Your task to perform on an android device: toggle show notifications on the lock screen Image 0: 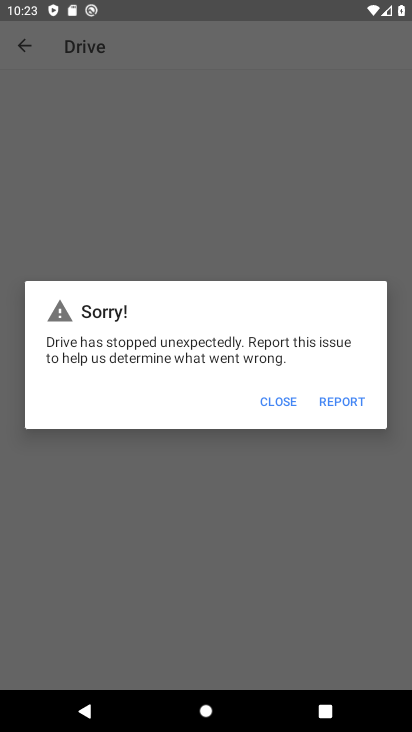
Step 0: press home button
Your task to perform on an android device: toggle show notifications on the lock screen Image 1: 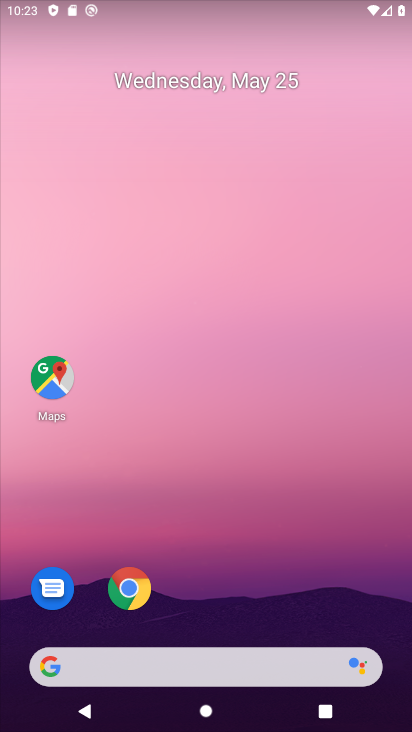
Step 1: drag from (277, 550) to (182, 132)
Your task to perform on an android device: toggle show notifications on the lock screen Image 2: 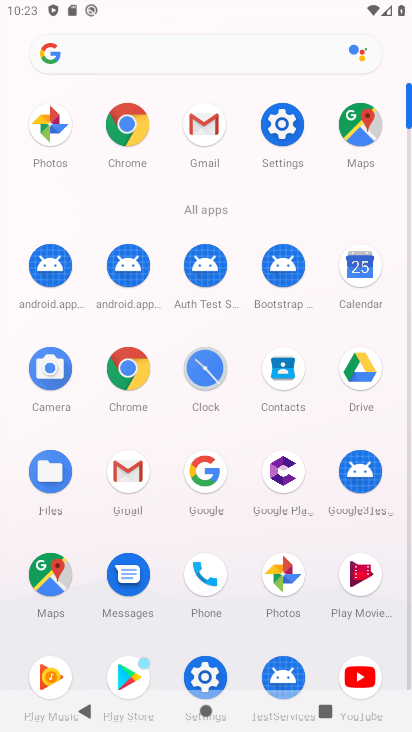
Step 2: click (301, 120)
Your task to perform on an android device: toggle show notifications on the lock screen Image 3: 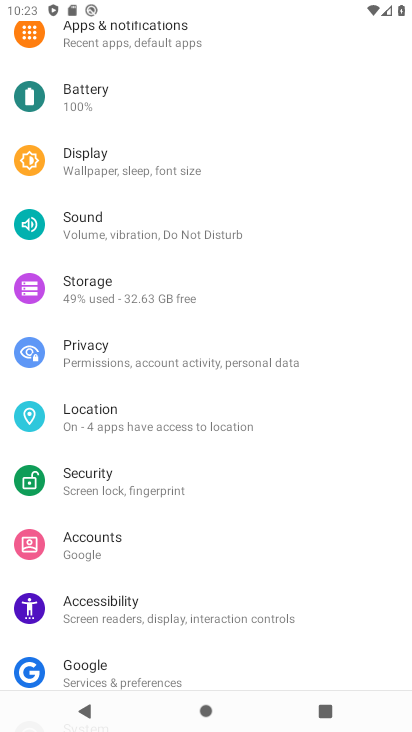
Step 3: drag from (210, 536) to (197, 707)
Your task to perform on an android device: toggle show notifications on the lock screen Image 4: 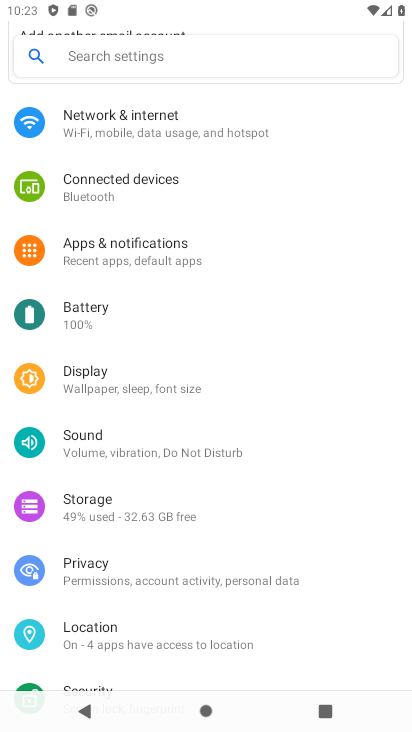
Step 4: click (111, 247)
Your task to perform on an android device: toggle show notifications on the lock screen Image 5: 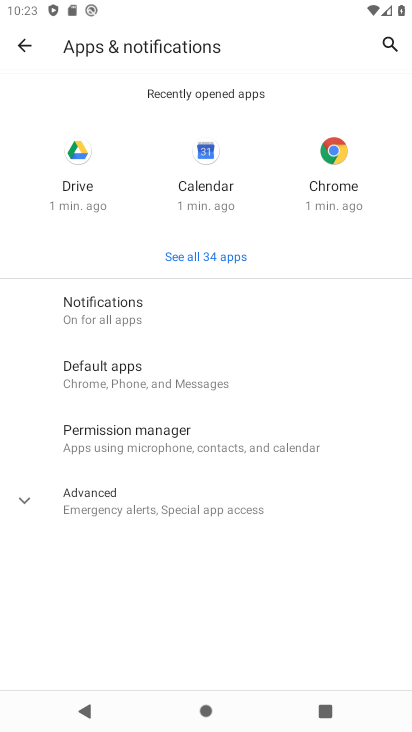
Step 5: click (142, 335)
Your task to perform on an android device: toggle show notifications on the lock screen Image 6: 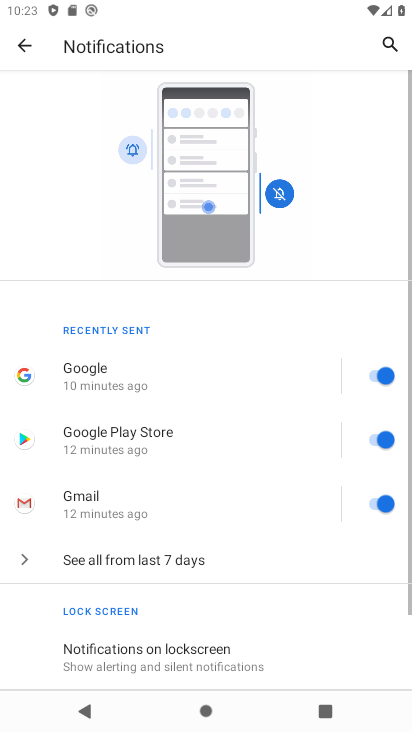
Step 6: drag from (173, 609) to (246, 244)
Your task to perform on an android device: toggle show notifications on the lock screen Image 7: 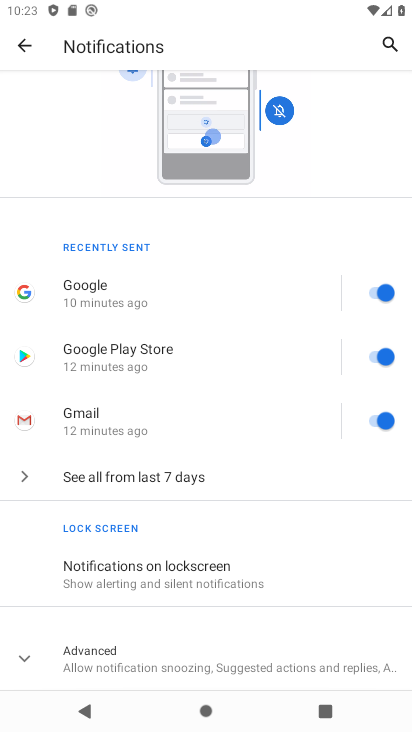
Step 7: click (112, 558)
Your task to perform on an android device: toggle show notifications on the lock screen Image 8: 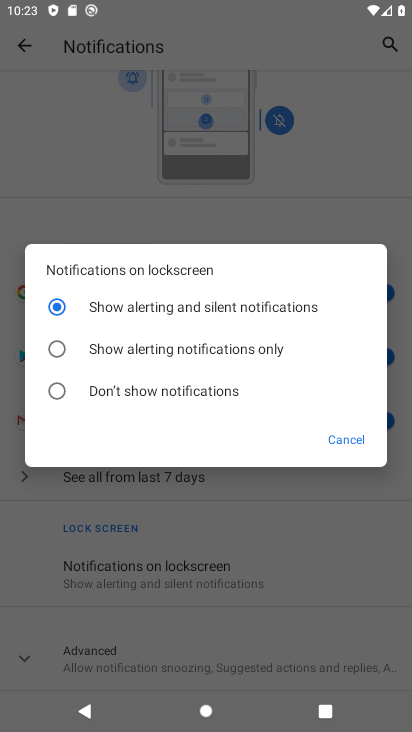
Step 8: click (244, 345)
Your task to perform on an android device: toggle show notifications on the lock screen Image 9: 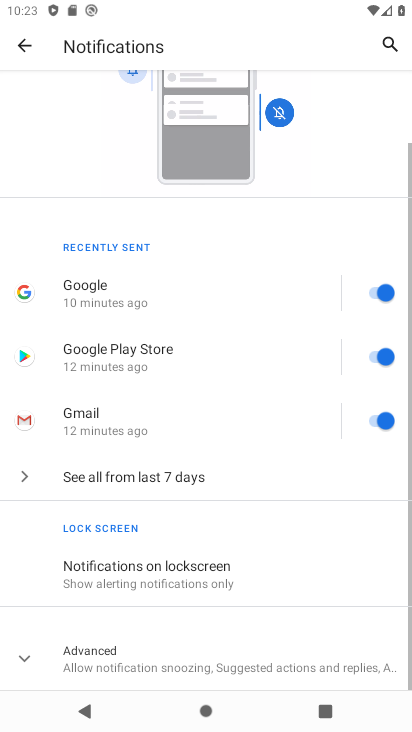
Step 9: task complete